Your task to perform on an android device: change text size in settings app Image 0: 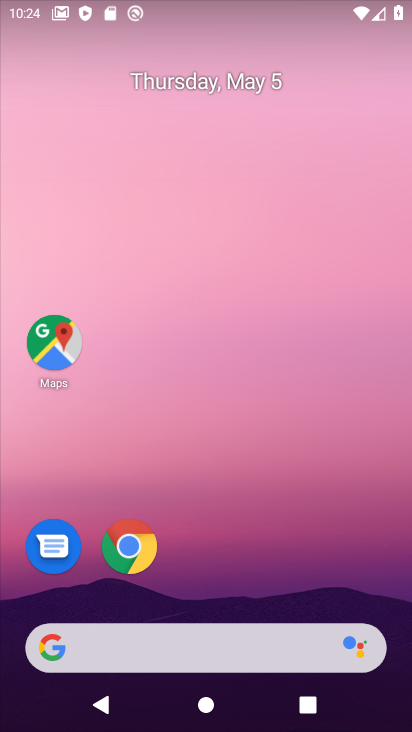
Step 0: drag from (245, 587) to (313, 34)
Your task to perform on an android device: change text size in settings app Image 1: 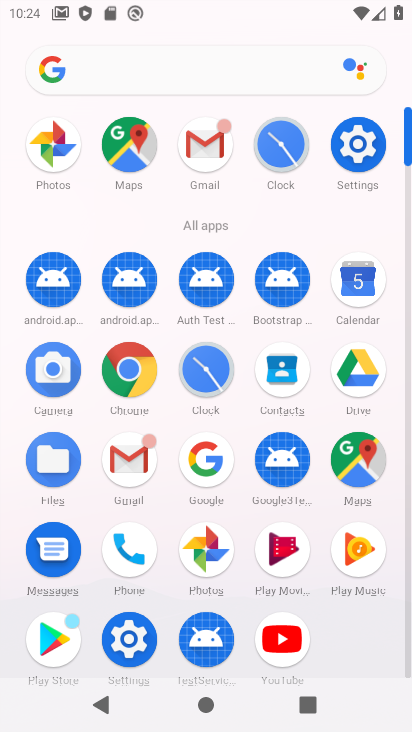
Step 1: click (136, 626)
Your task to perform on an android device: change text size in settings app Image 2: 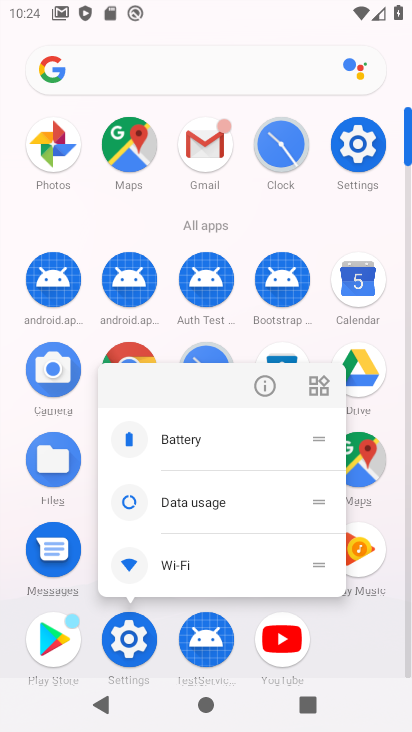
Step 2: click (132, 628)
Your task to perform on an android device: change text size in settings app Image 3: 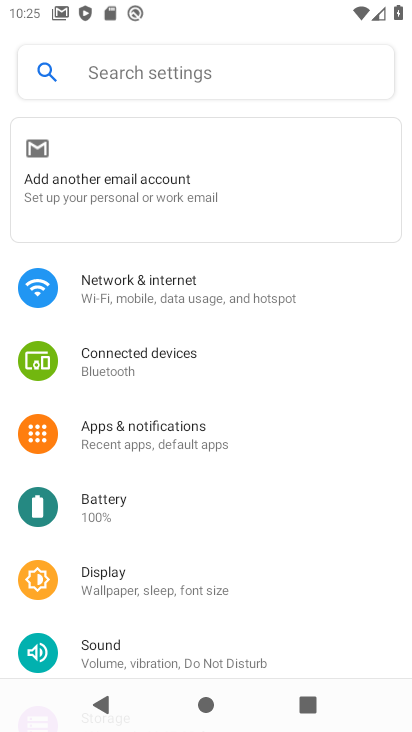
Step 3: click (149, 579)
Your task to perform on an android device: change text size in settings app Image 4: 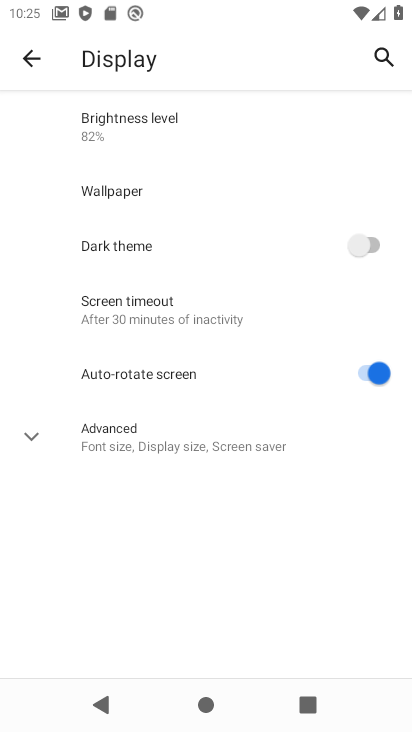
Step 4: click (121, 443)
Your task to perform on an android device: change text size in settings app Image 5: 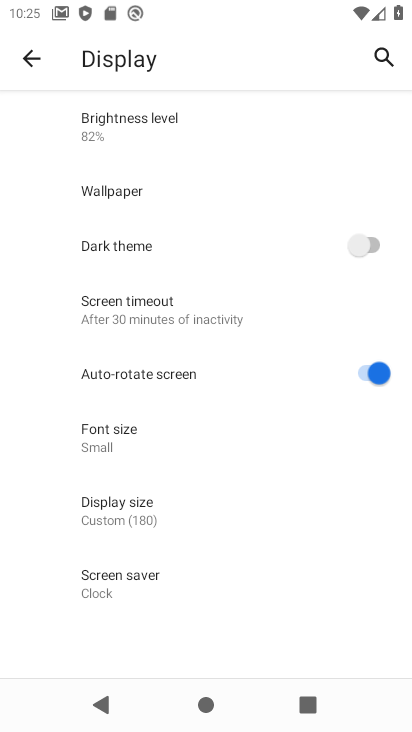
Step 5: click (115, 432)
Your task to perform on an android device: change text size in settings app Image 6: 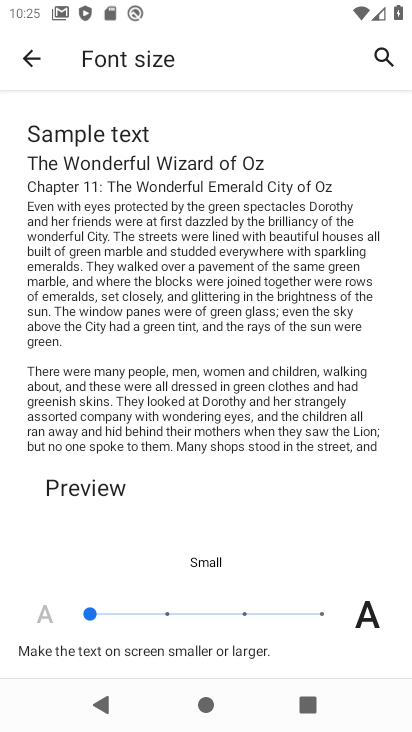
Step 6: click (174, 624)
Your task to perform on an android device: change text size in settings app Image 7: 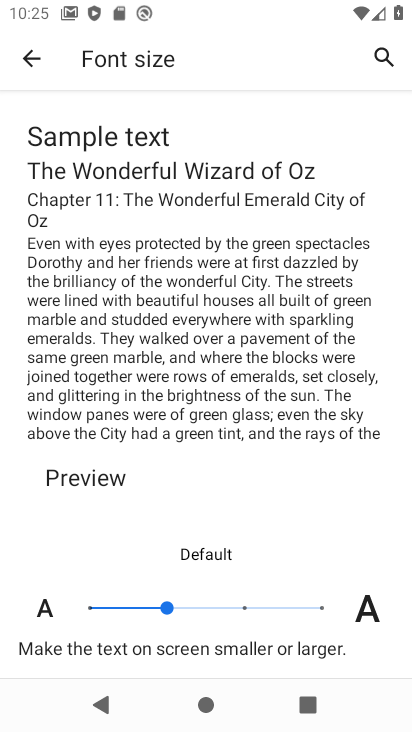
Step 7: task complete